Your task to perform on an android device: Open notification settings Image 0: 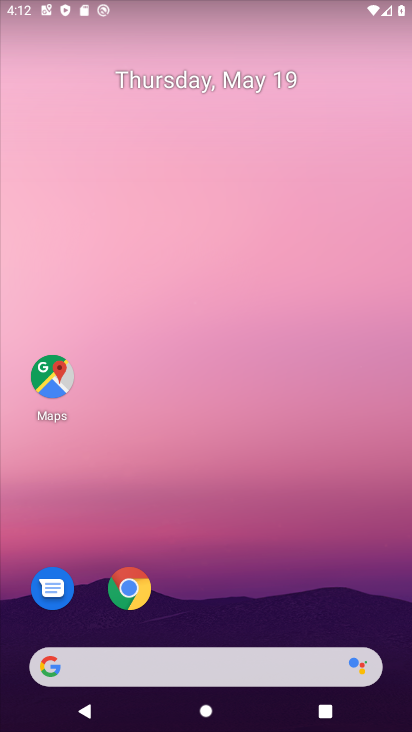
Step 0: drag from (223, 611) to (372, 38)
Your task to perform on an android device: Open notification settings Image 1: 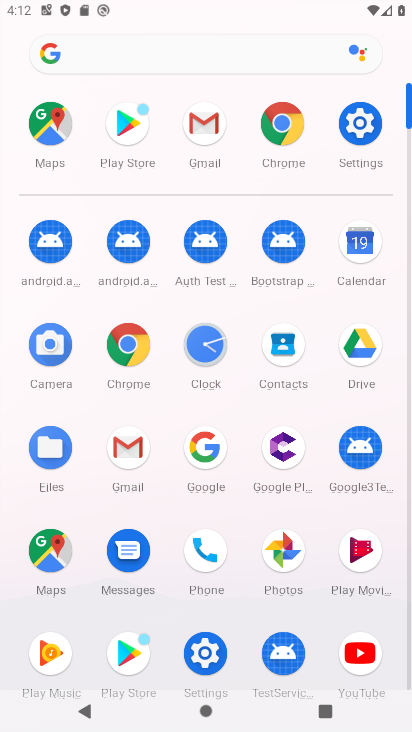
Step 1: click (365, 132)
Your task to perform on an android device: Open notification settings Image 2: 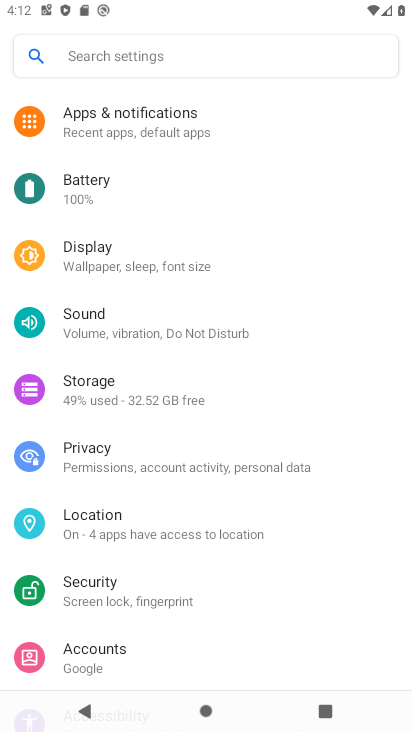
Step 2: click (148, 123)
Your task to perform on an android device: Open notification settings Image 3: 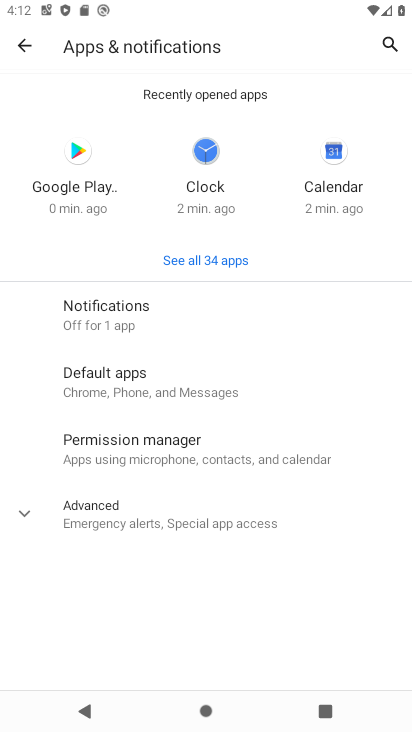
Step 3: task complete